Your task to perform on an android device: Is it going to rain tomorrow? Image 0: 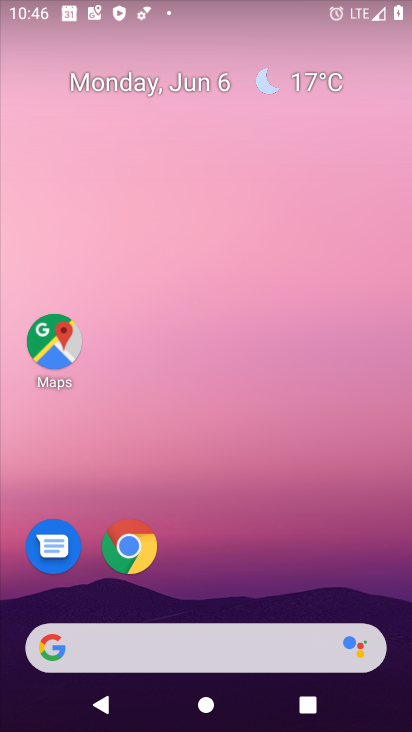
Step 0: click (304, 83)
Your task to perform on an android device: Is it going to rain tomorrow? Image 1: 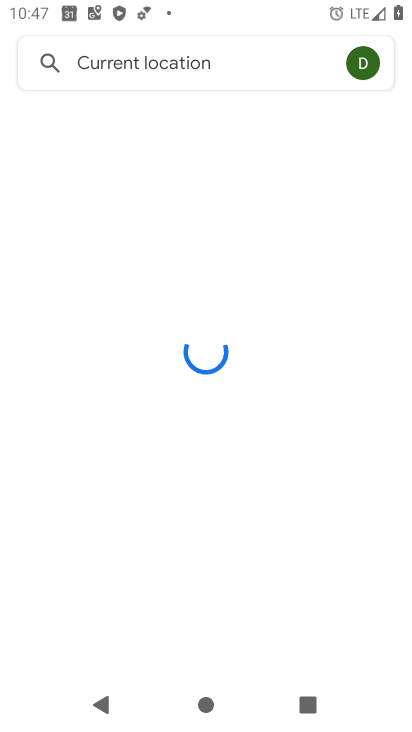
Step 1: click (268, 80)
Your task to perform on an android device: Is it going to rain tomorrow? Image 2: 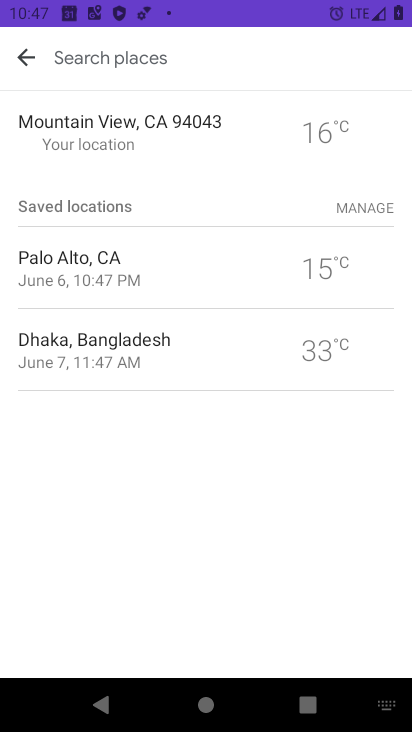
Step 2: click (28, 55)
Your task to perform on an android device: Is it going to rain tomorrow? Image 3: 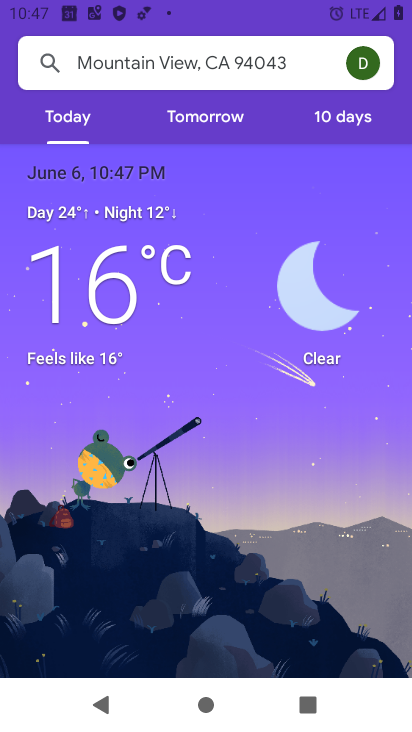
Step 3: click (237, 114)
Your task to perform on an android device: Is it going to rain tomorrow? Image 4: 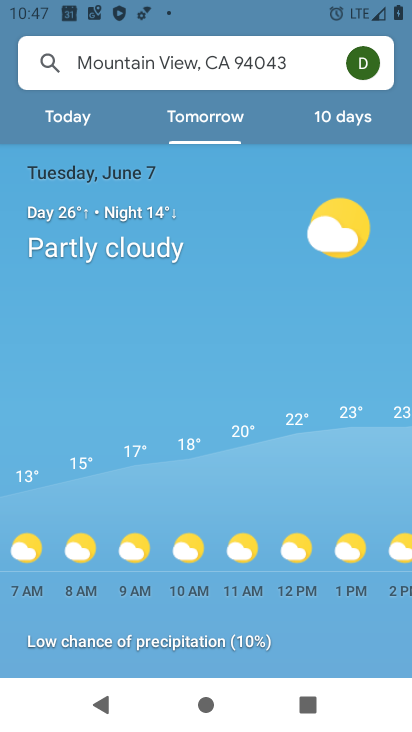
Step 4: task complete